Your task to perform on an android device: turn notification dots off Image 0: 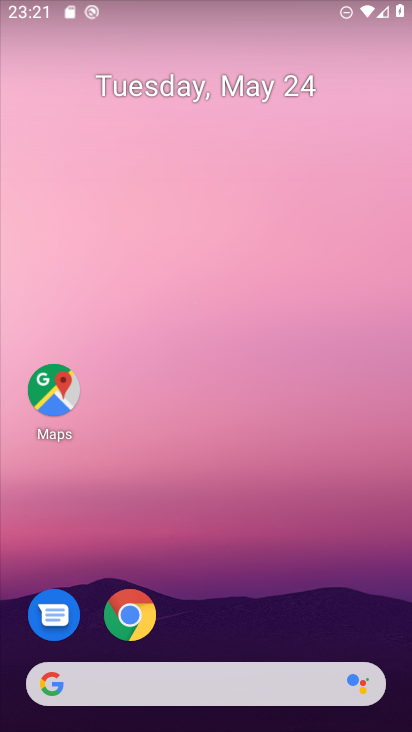
Step 0: drag from (275, 685) to (376, 0)
Your task to perform on an android device: turn notification dots off Image 1: 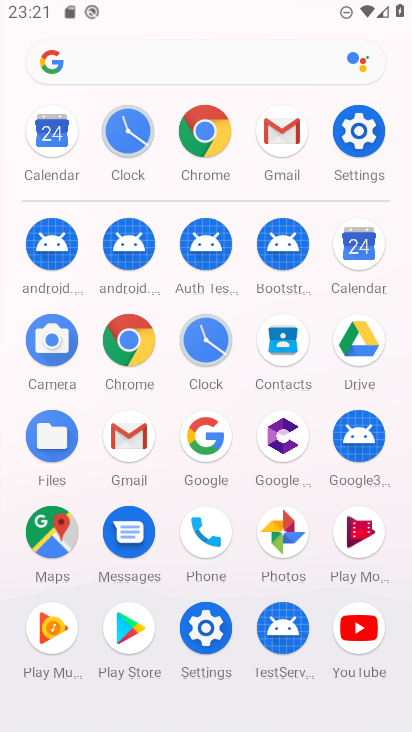
Step 1: click (347, 137)
Your task to perform on an android device: turn notification dots off Image 2: 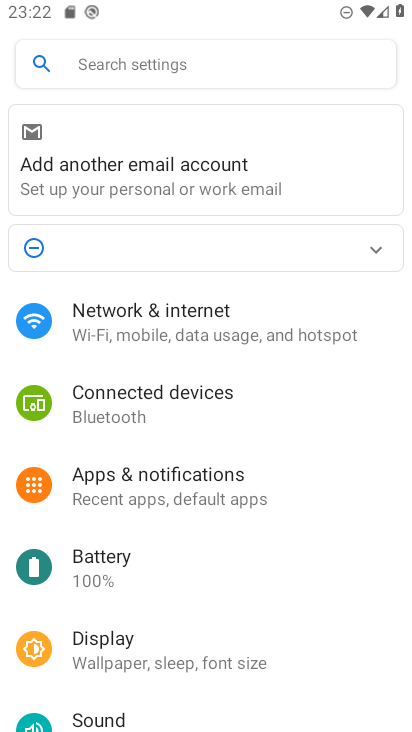
Step 2: click (215, 69)
Your task to perform on an android device: turn notification dots off Image 3: 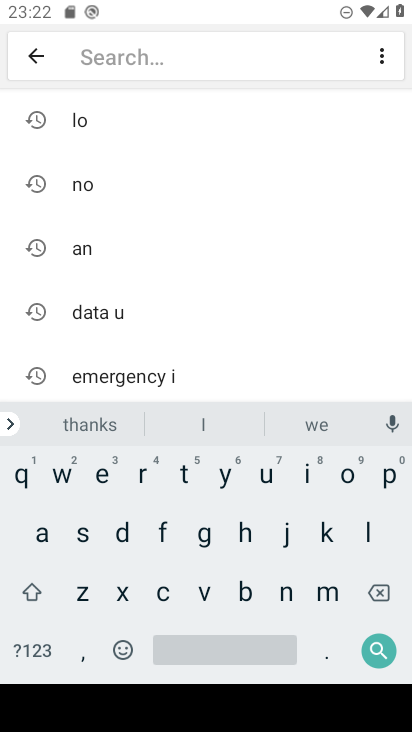
Step 3: click (97, 178)
Your task to perform on an android device: turn notification dots off Image 4: 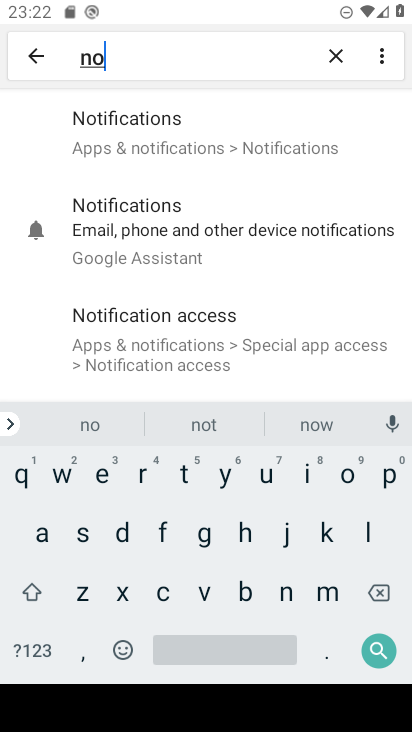
Step 4: click (334, 50)
Your task to perform on an android device: turn notification dots off Image 5: 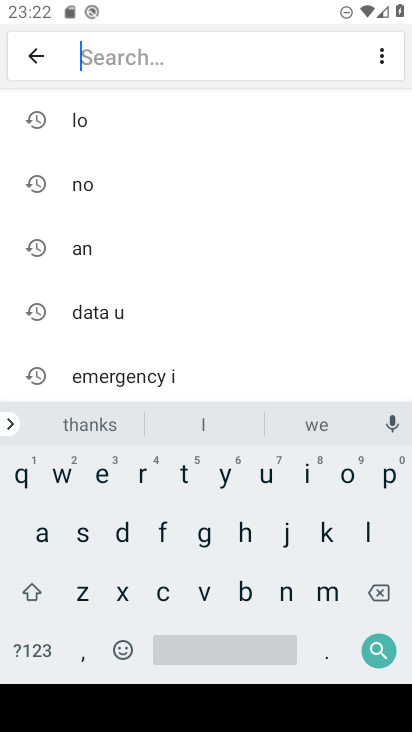
Step 5: click (117, 531)
Your task to perform on an android device: turn notification dots off Image 6: 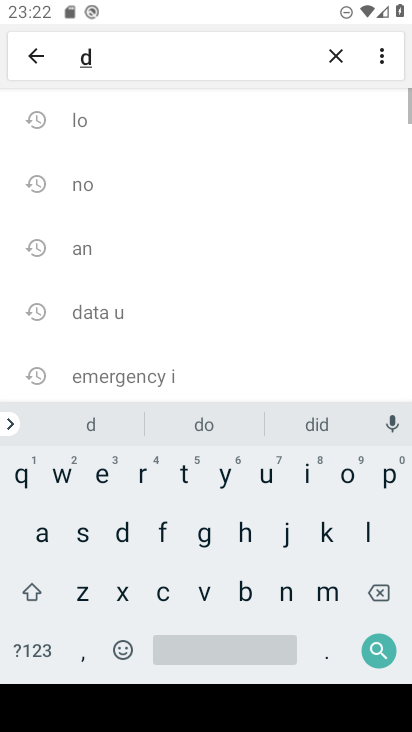
Step 6: click (347, 475)
Your task to perform on an android device: turn notification dots off Image 7: 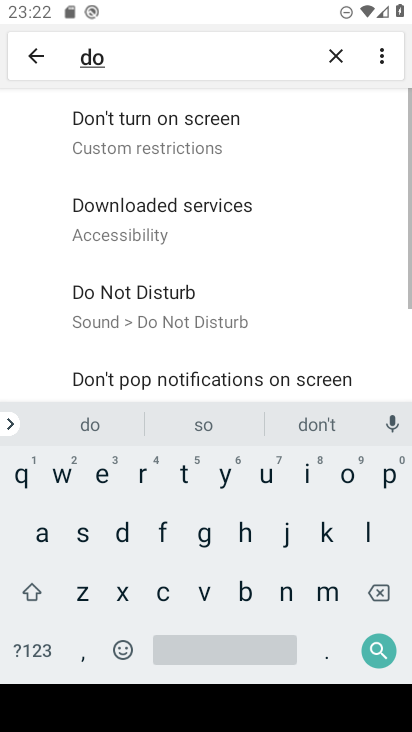
Step 7: click (189, 478)
Your task to perform on an android device: turn notification dots off Image 8: 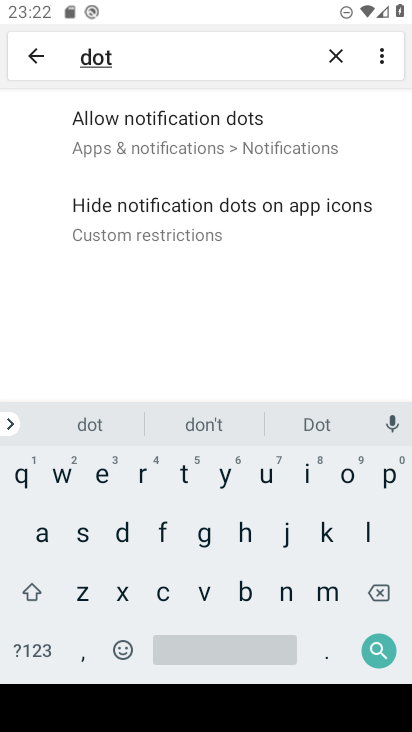
Step 8: click (198, 139)
Your task to perform on an android device: turn notification dots off Image 9: 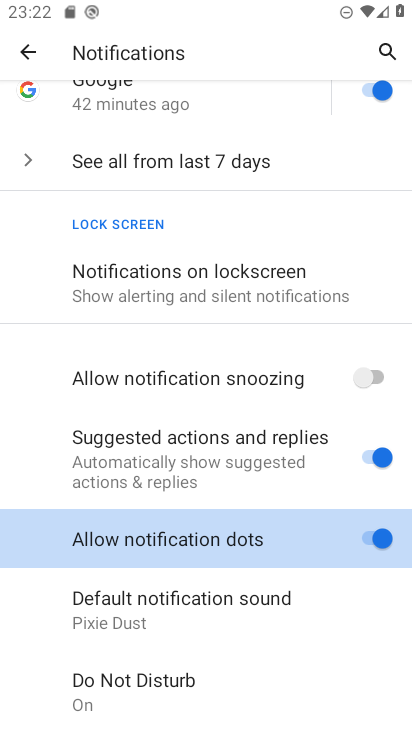
Step 9: click (319, 526)
Your task to perform on an android device: turn notification dots off Image 10: 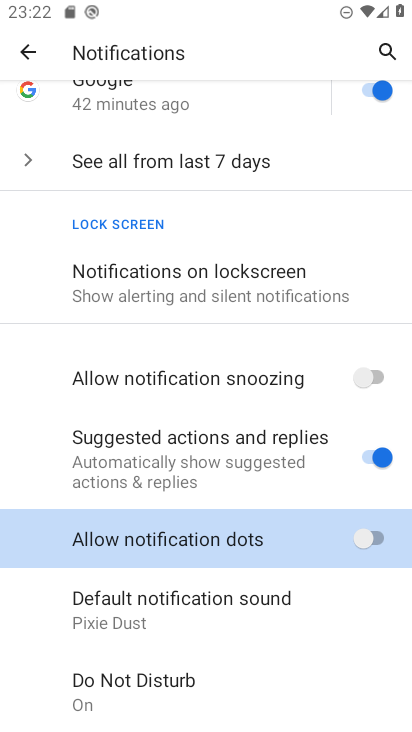
Step 10: task complete